Your task to perform on an android device: turn off smart reply in the gmail app Image 0: 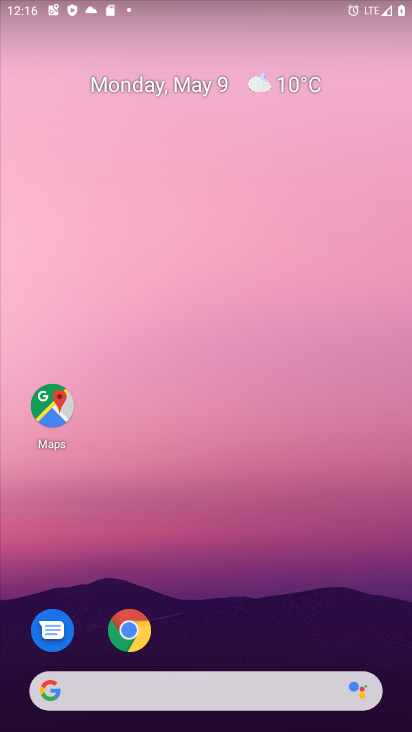
Step 0: drag from (322, 628) to (242, 51)
Your task to perform on an android device: turn off smart reply in the gmail app Image 1: 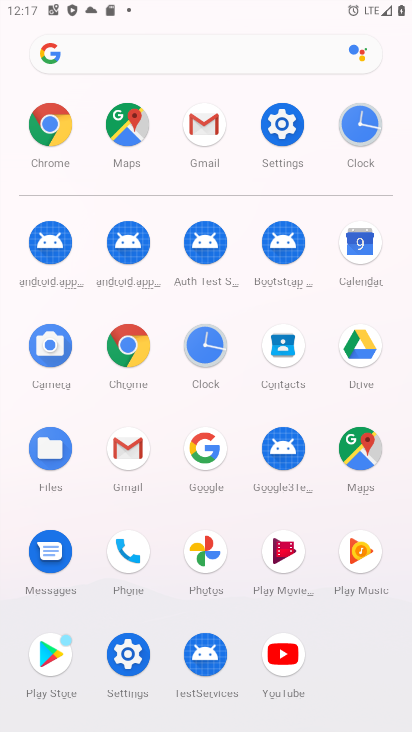
Step 1: click (117, 455)
Your task to perform on an android device: turn off smart reply in the gmail app Image 2: 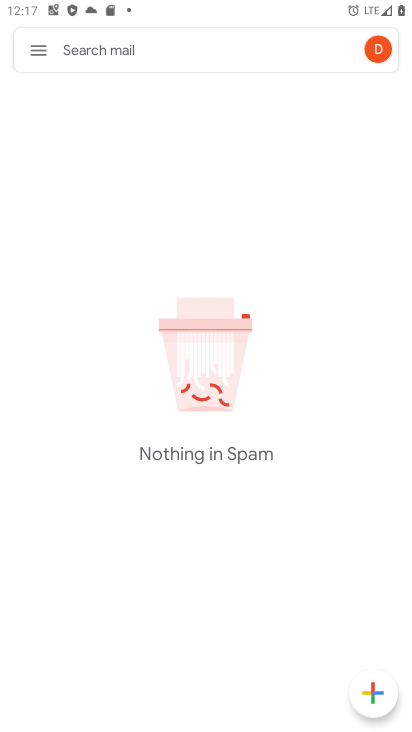
Step 2: click (27, 45)
Your task to perform on an android device: turn off smart reply in the gmail app Image 3: 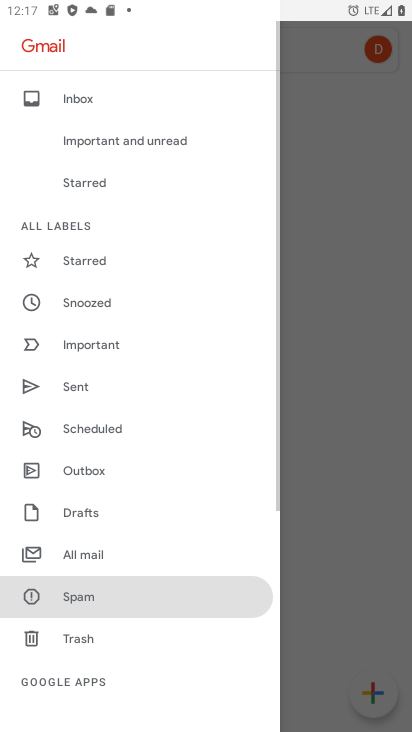
Step 3: drag from (119, 635) to (172, 113)
Your task to perform on an android device: turn off smart reply in the gmail app Image 4: 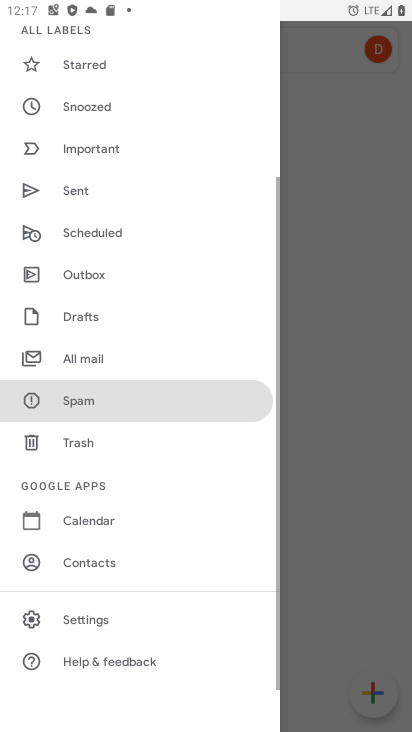
Step 4: click (133, 620)
Your task to perform on an android device: turn off smart reply in the gmail app Image 5: 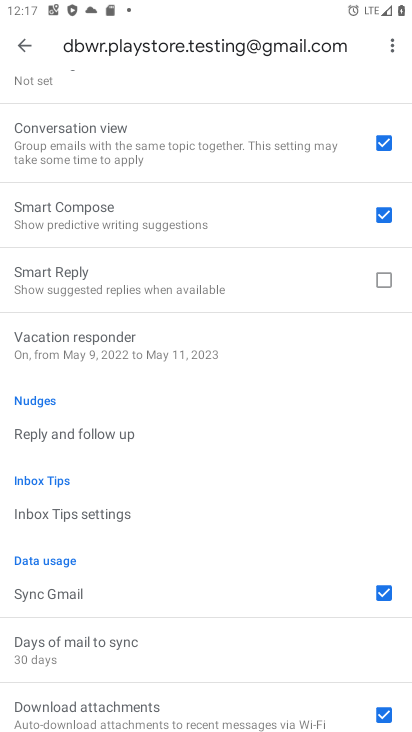
Step 5: task complete